Your task to perform on an android device: Go to wifi settings Image 0: 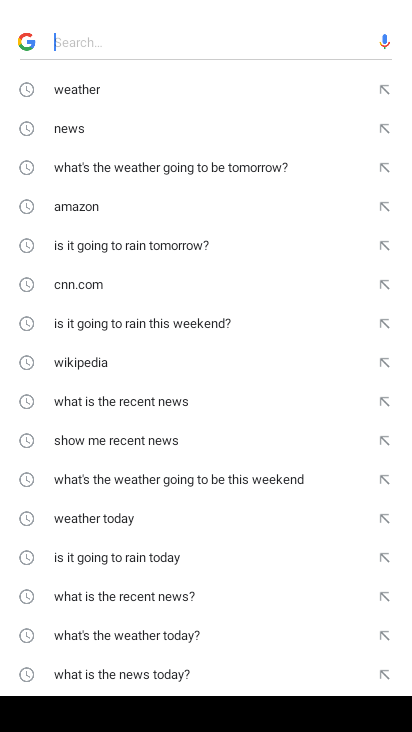
Step 0: press home button
Your task to perform on an android device: Go to wifi settings Image 1: 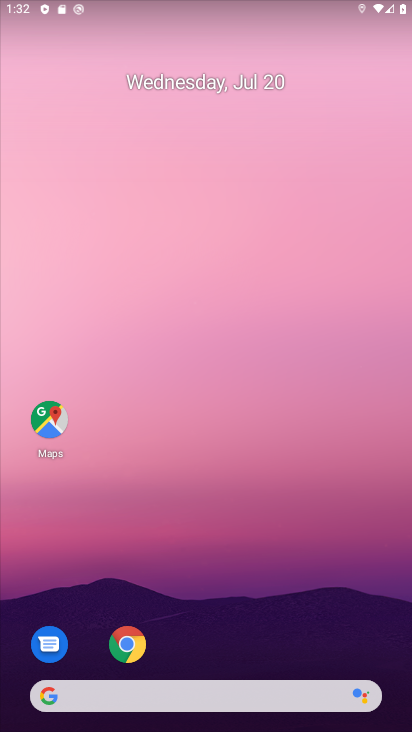
Step 1: drag from (298, 598) to (261, 18)
Your task to perform on an android device: Go to wifi settings Image 2: 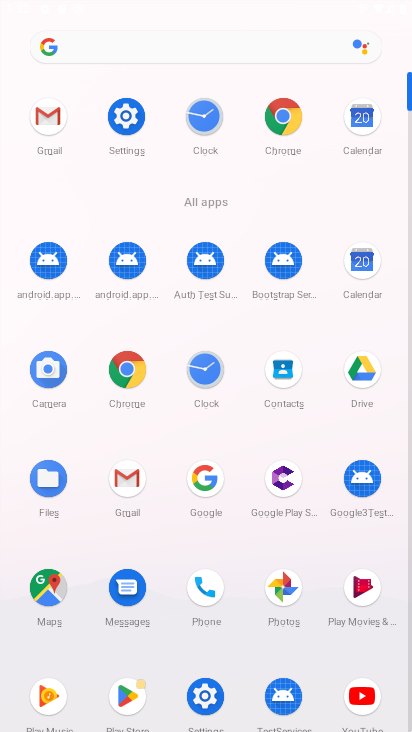
Step 2: click (135, 108)
Your task to perform on an android device: Go to wifi settings Image 3: 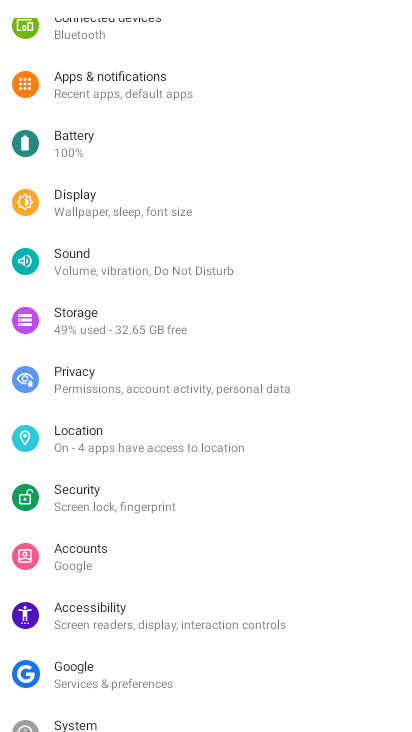
Step 3: drag from (164, 323) to (188, 476)
Your task to perform on an android device: Go to wifi settings Image 4: 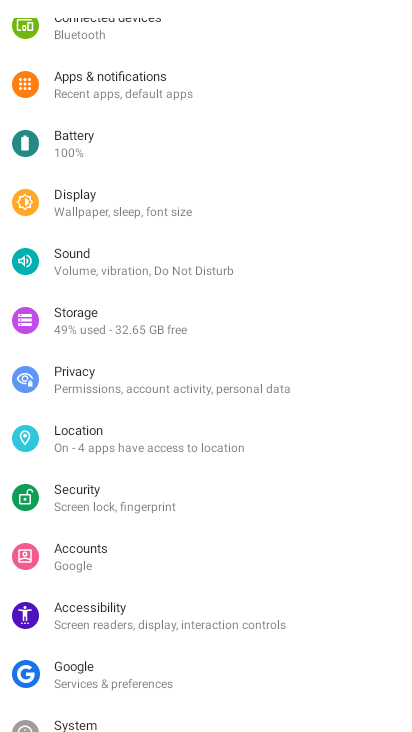
Step 4: drag from (225, 148) to (249, 521)
Your task to perform on an android device: Go to wifi settings Image 5: 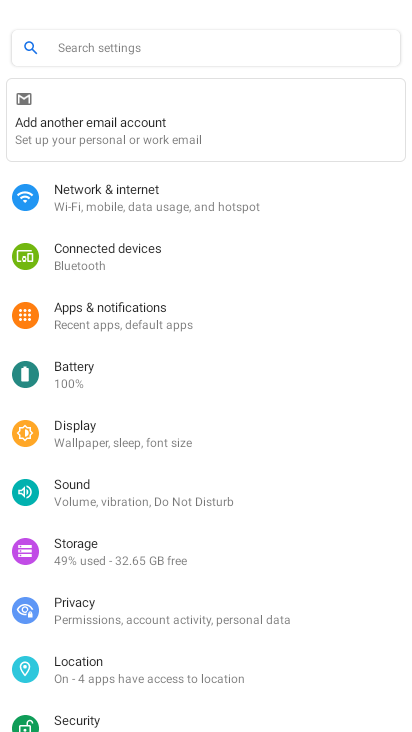
Step 5: click (197, 182)
Your task to perform on an android device: Go to wifi settings Image 6: 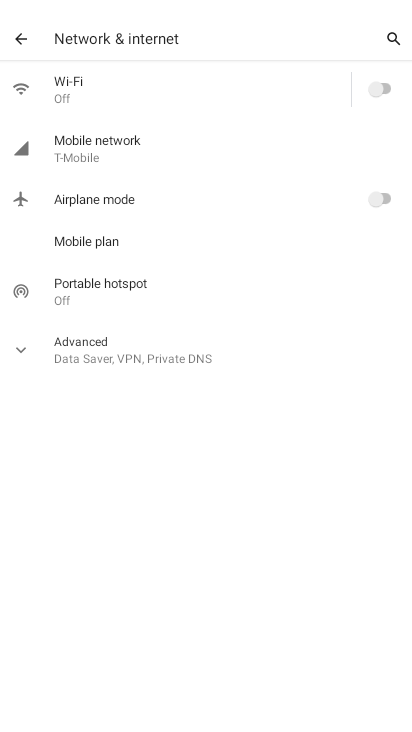
Step 6: click (184, 93)
Your task to perform on an android device: Go to wifi settings Image 7: 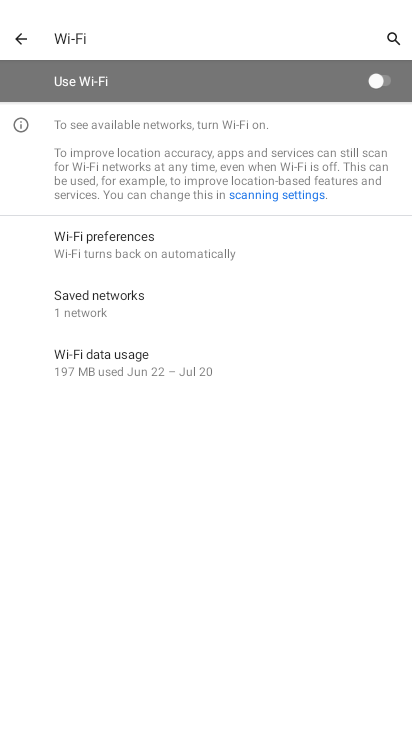
Step 7: task complete